Your task to perform on an android device: Go to calendar. Show me events next week Image 0: 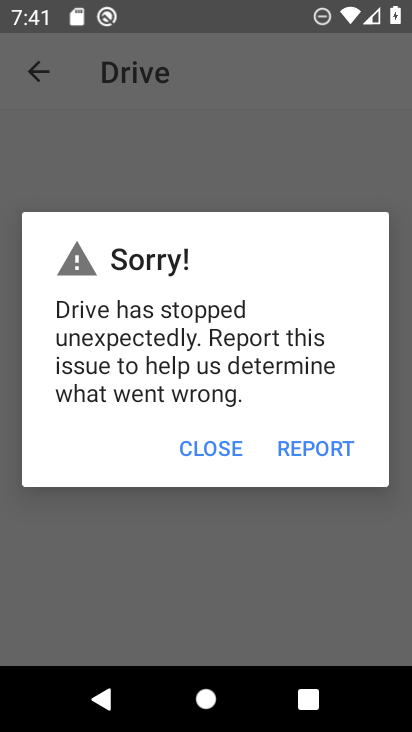
Step 0: press home button
Your task to perform on an android device: Go to calendar. Show me events next week Image 1: 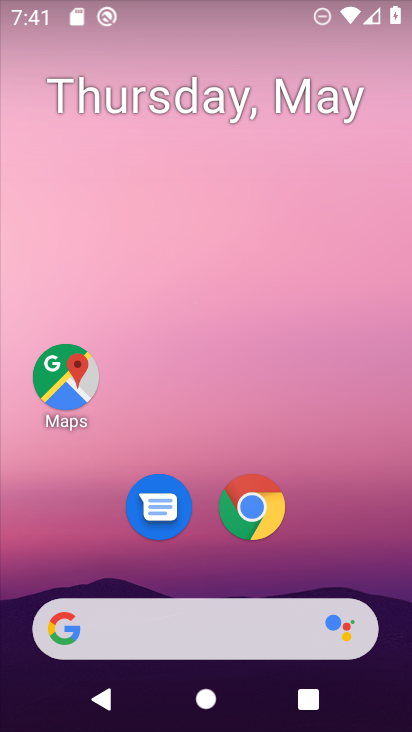
Step 1: drag from (379, 519) to (406, 209)
Your task to perform on an android device: Go to calendar. Show me events next week Image 2: 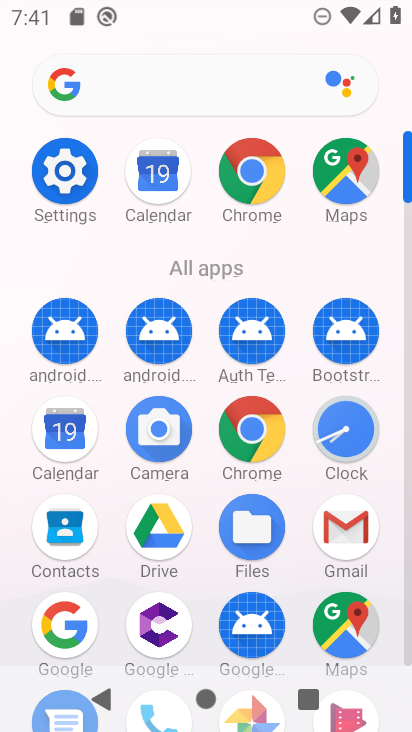
Step 2: click (60, 444)
Your task to perform on an android device: Go to calendar. Show me events next week Image 3: 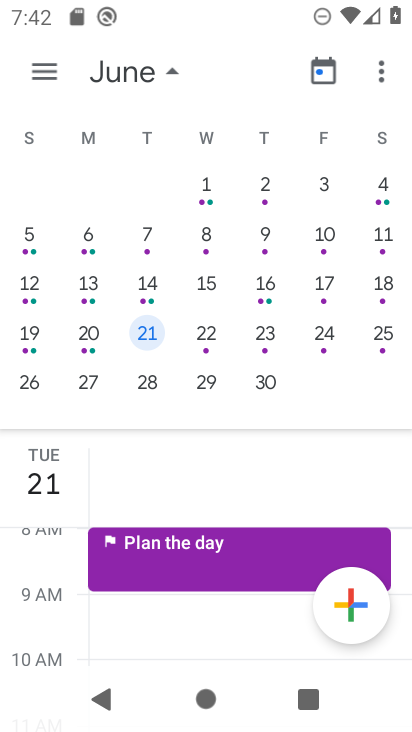
Step 3: task complete